Your task to perform on an android device: Open Google Maps Image 0: 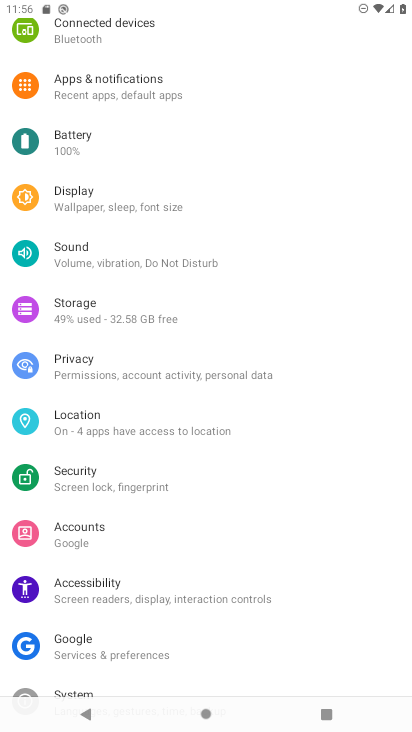
Step 0: press home button
Your task to perform on an android device: Open Google Maps Image 1: 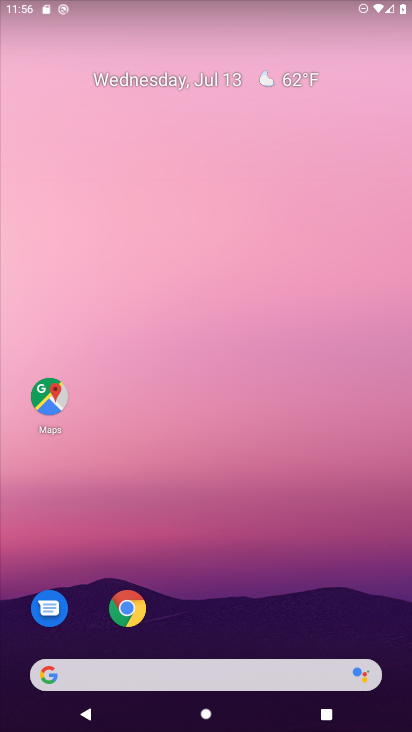
Step 1: drag from (226, 726) to (214, 38)
Your task to perform on an android device: Open Google Maps Image 2: 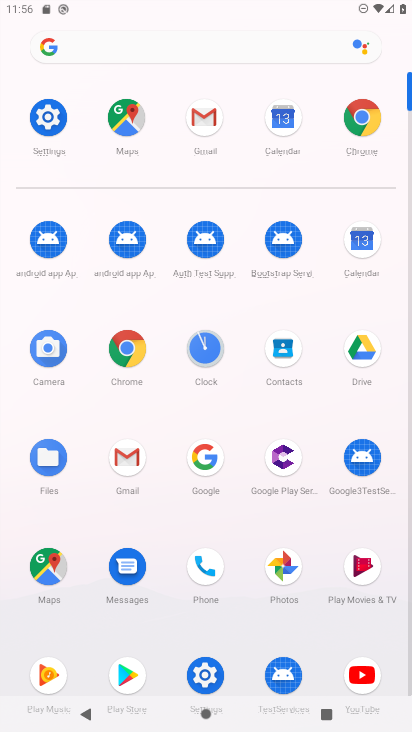
Step 2: click (46, 570)
Your task to perform on an android device: Open Google Maps Image 3: 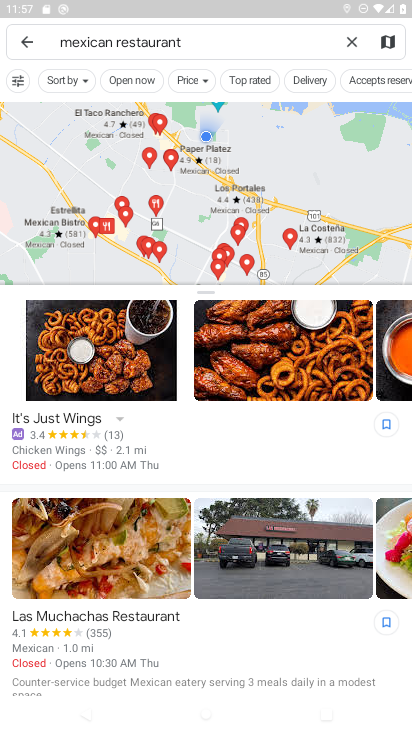
Step 3: task complete